Your task to perform on an android device: toggle data saver in the chrome app Image 0: 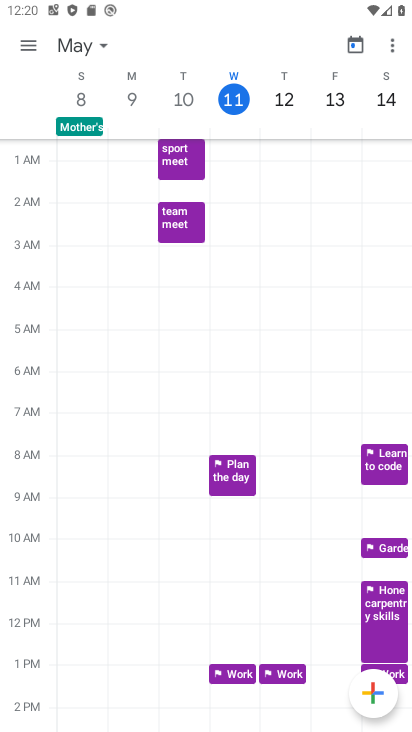
Step 0: press home button
Your task to perform on an android device: toggle data saver in the chrome app Image 1: 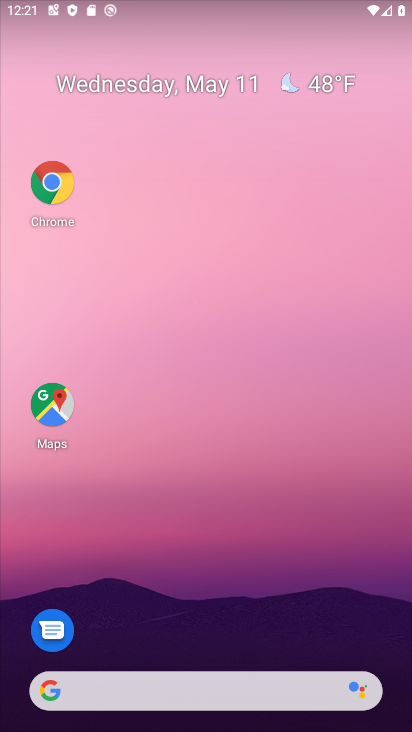
Step 1: click (53, 190)
Your task to perform on an android device: toggle data saver in the chrome app Image 2: 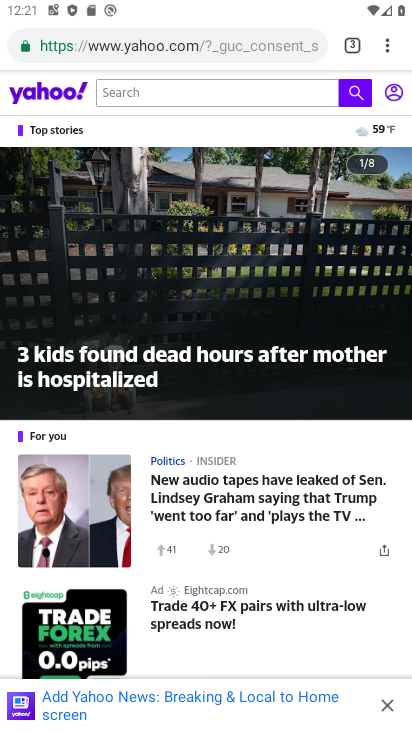
Step 2: click (384, 49)
Your task to perform on an android device: toggle data saver in the chrome app Image 3: 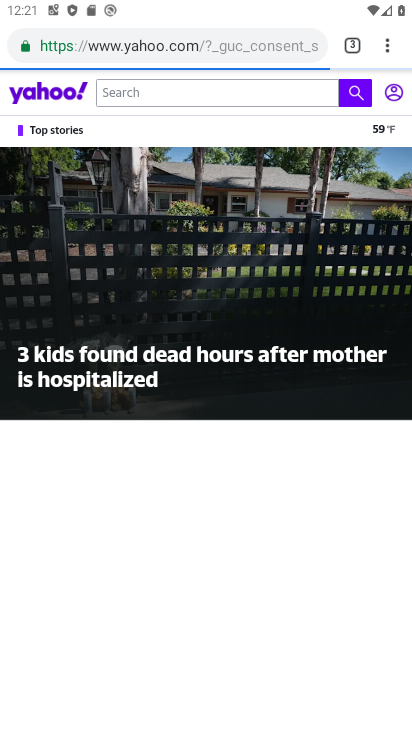
Step 3: click (384, 49)
Your task to perform on an android device: toggle data saver in the chrome app Image 4: 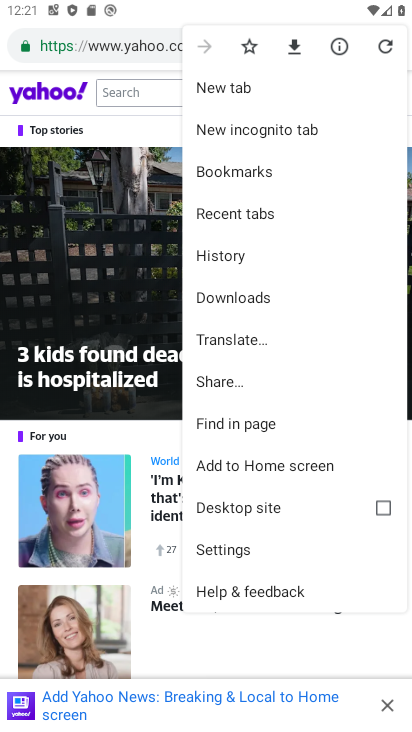
Step 4: click (221, 536)
Your task to perform on an android device: toggle data saver in the chrome app Image 5: 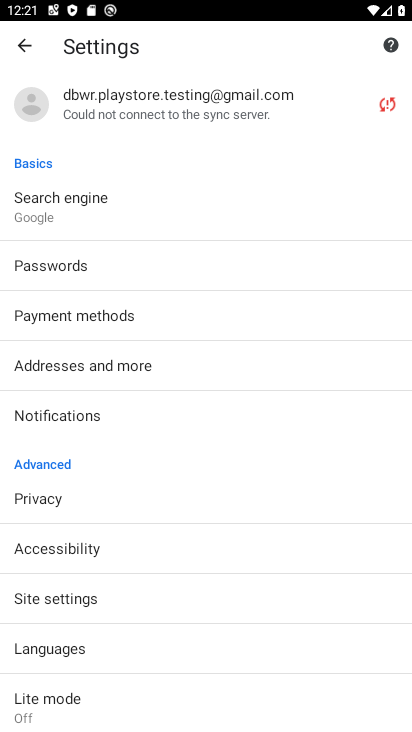
Step 5: drag from (114, 656) to (67, 107)
Your task to perform on an android device: toggle data saver in the chrome app Image 6: 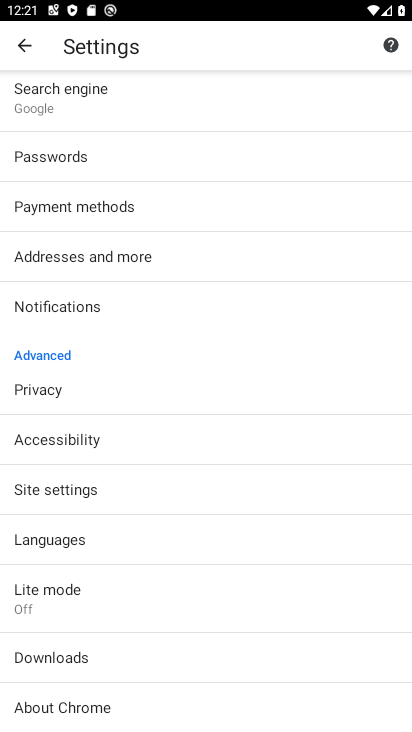
Step 6: click (57, 606)
Your task to perform on an android device: toggle data saver in the chrome app Image 7: 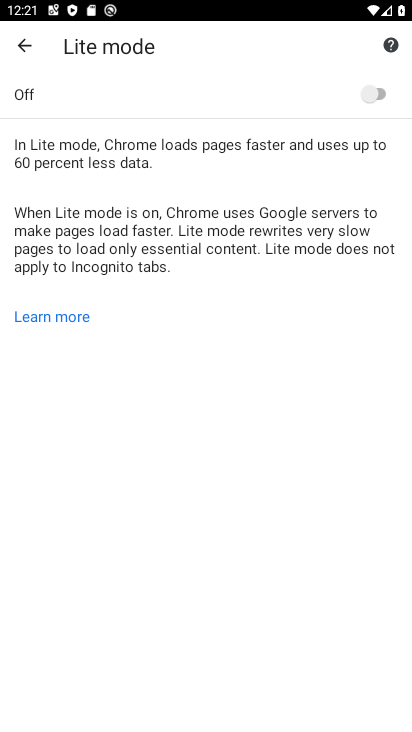
Step 7: click (379, 82)
Your task to perform on an android device: toggle data saver in the chrome app Image 8: 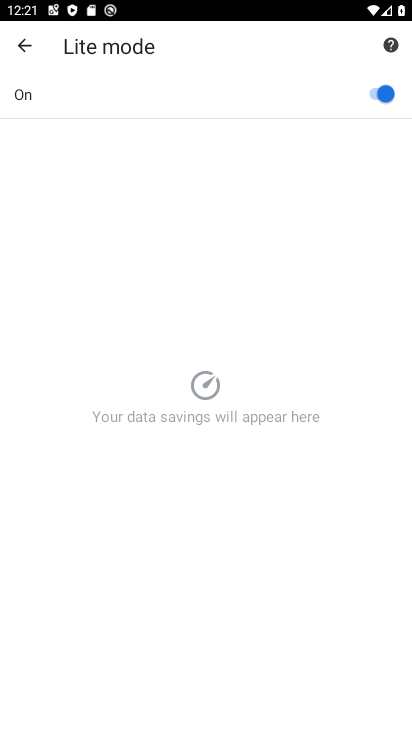
Step 8: task complete